Your task to perform on an android device: Go to Maps Image 0: 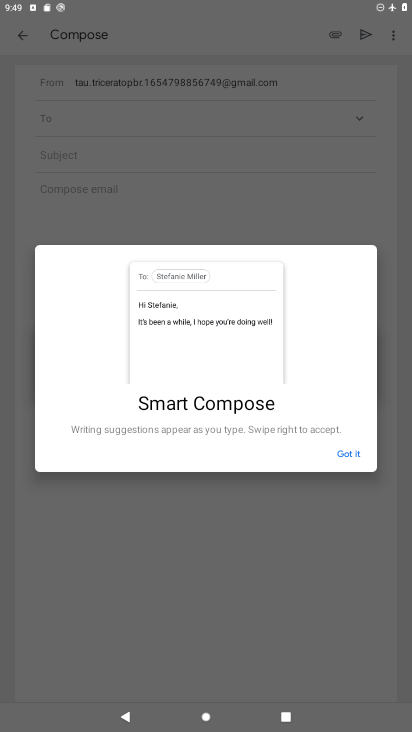
Step 0: press home button
Your task to perform on an android device: Go to Maps Image 1: 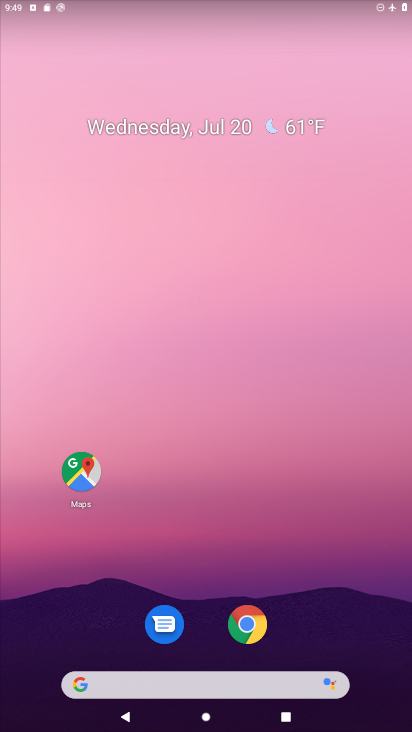
Step 1: click (87, 462)
Your task to perform on an android device: Go to Maps Image 2: 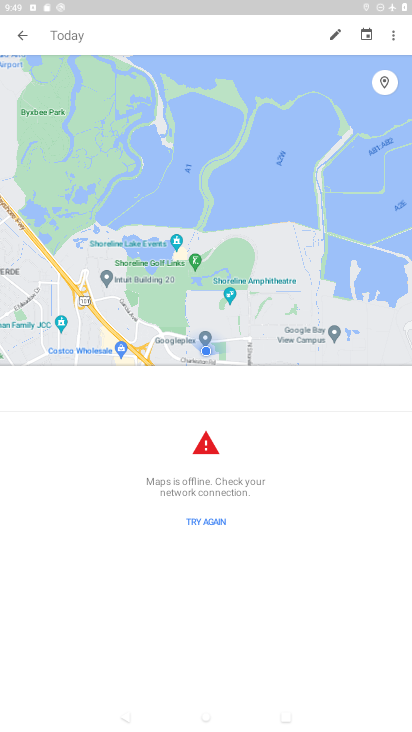
Step 2: task complete